Your task to perform on an android device: Open location settings Image 0: 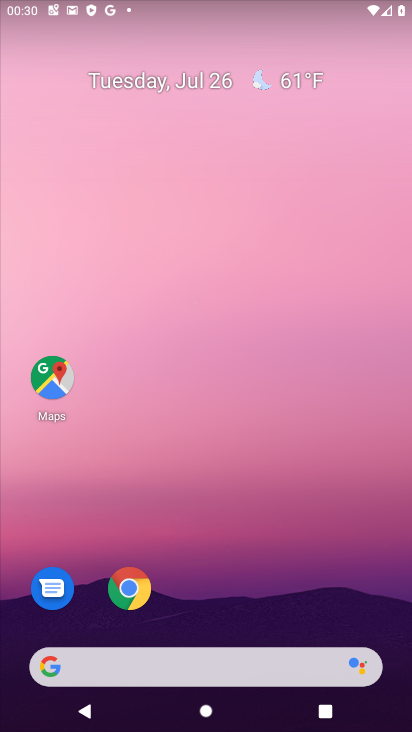
Step 0: press home button
Your task to perform on an android device: Open location settings Image 1: 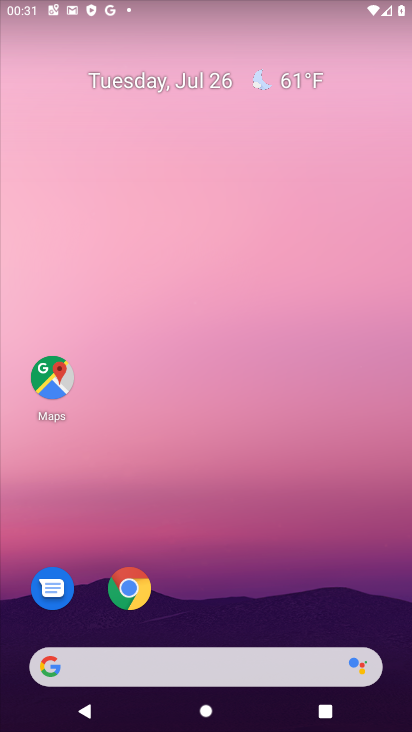
Step 1: drag from (202, 634) to (196, 19)
Your task to perform on an android device: Open location settings Image 2: 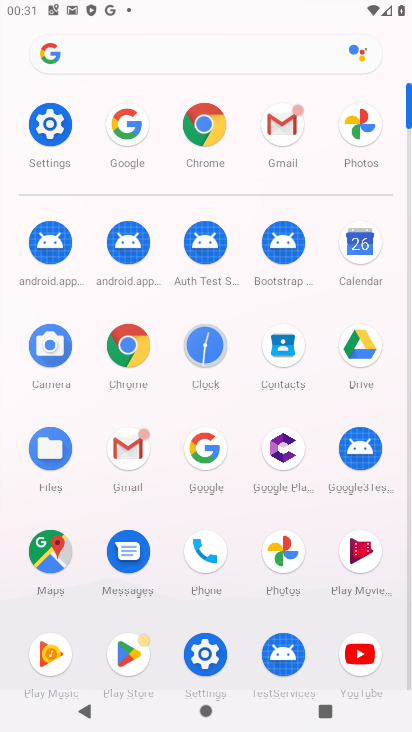
Step 2: click (48, 117)
Your task to perform on an android device: Open location settings Image 3: 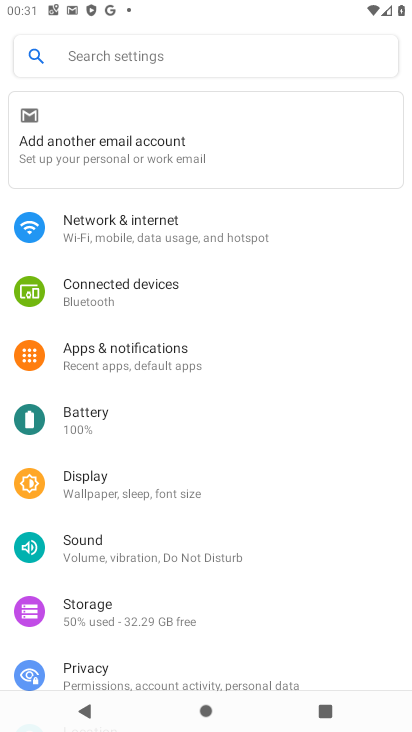
Step 3: drag from (183, 674) to (205, 114)
Your task to perform on an android device: Open location settings Image 4: 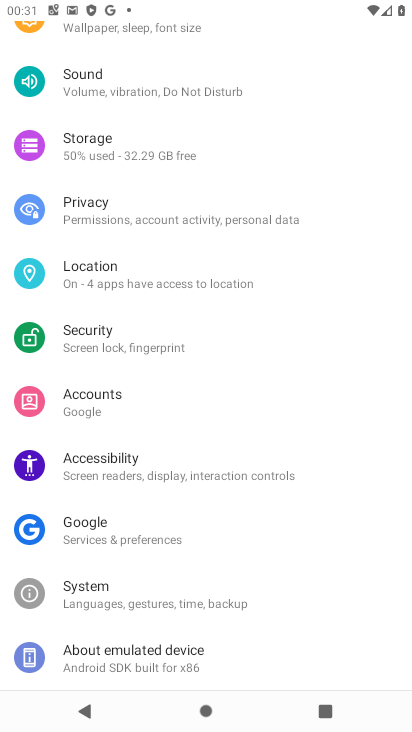
Step 4: click (131, 266)
Your task to perform on an android device: Open location settings Image 5: 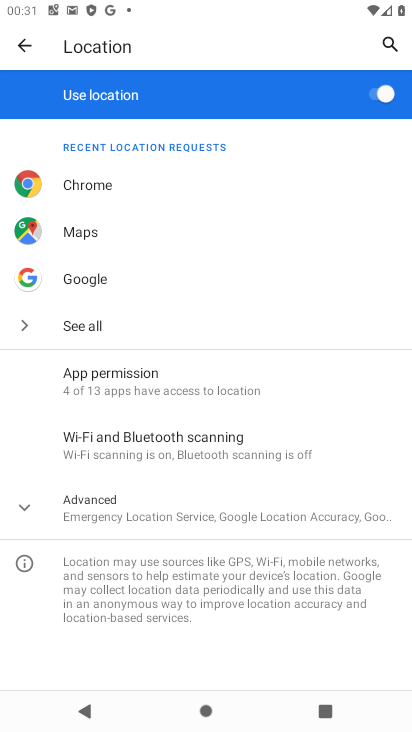
Step 5: click (29, 504)
Your task to perform on an android device: Open location settings Image 6: 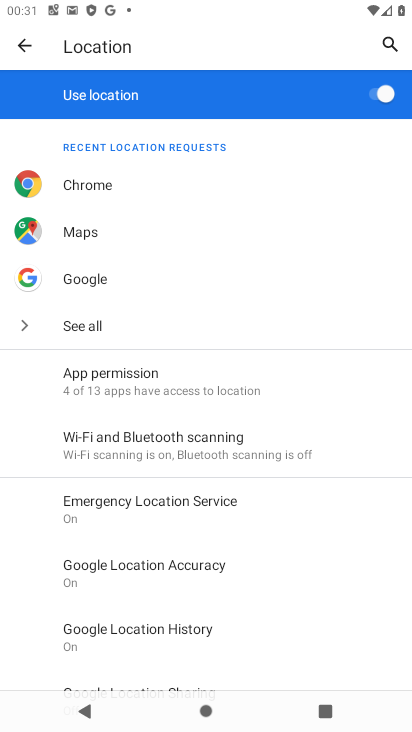
Step 6: task complete